Your task to perform on an android device: empty trash in the gmail app Image 0: 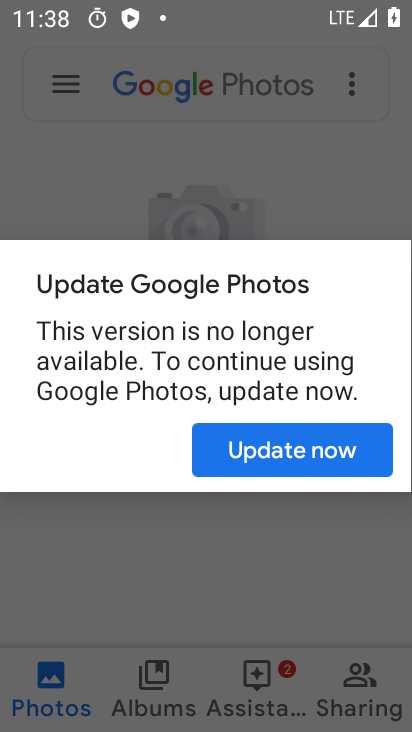
Step 0: press back button
Your task to perform on an android device: empty trash in the gmail app Image 1: 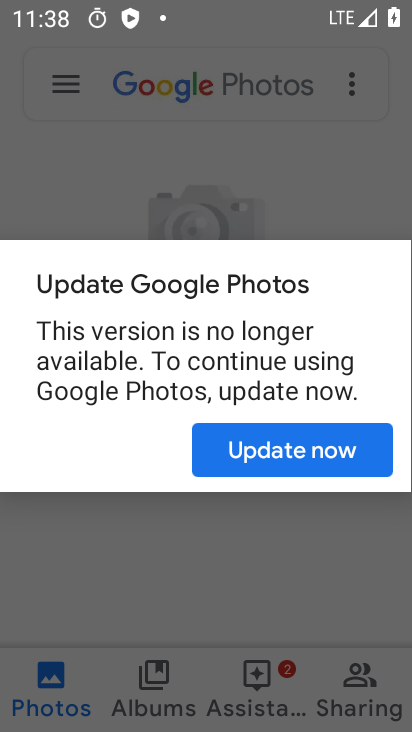
Step 1: press home button
Your task to perform on an android device: empty trash in the gmail app Image 2: 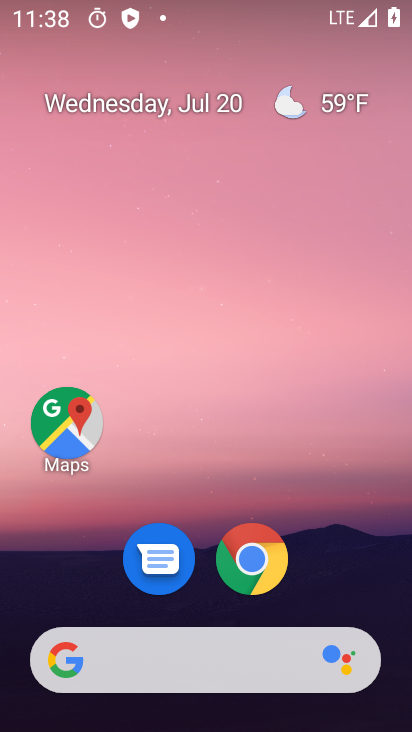
Step 2: drag from (97, 599) to (229, 15)
Your task to perform on an android device: empty trash in the gmail app Image 3: 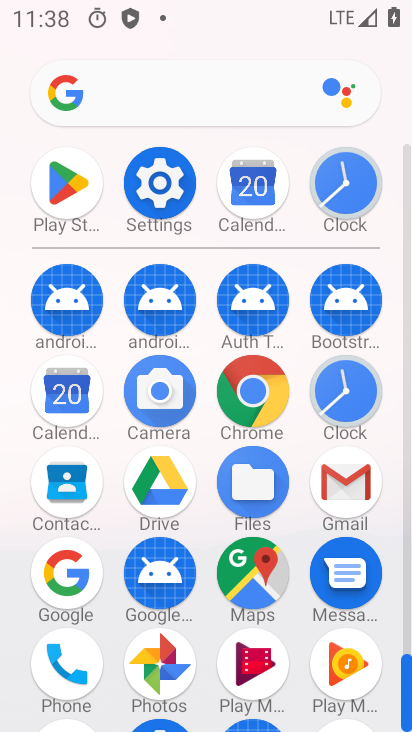
Step 3: click (351, 484)
Your task to perform on an android device: empty trash in the gmail app Image 4: 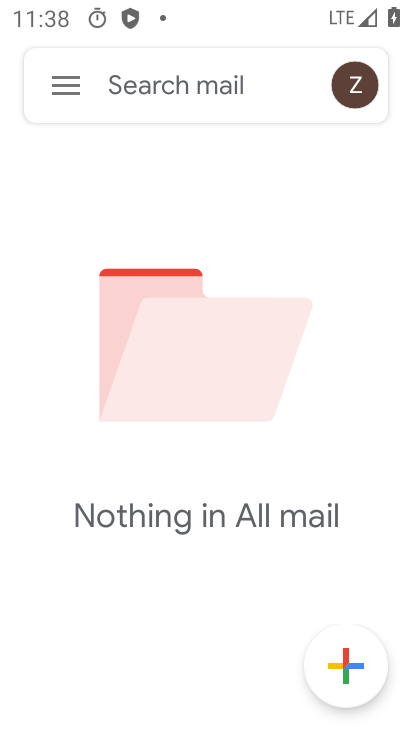
Step 4: click (83, 76)
Your task to perform on an android device: empty trash in the gmail app Image 5: 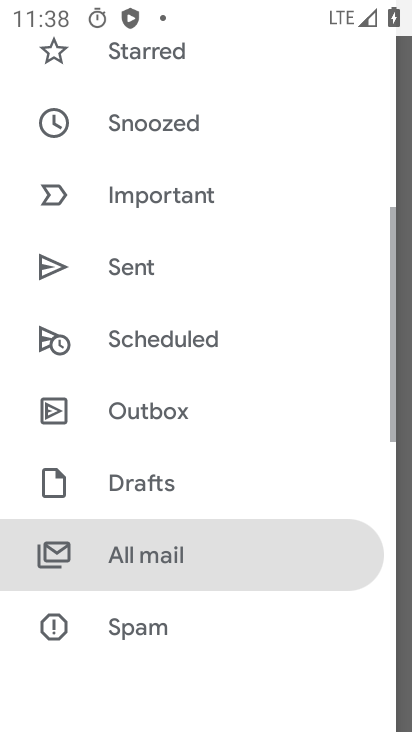
Step 5: drag from (194, 231) to (194, 638)
Your task to perform on an android device: empty trash in the gmail app Image 6: 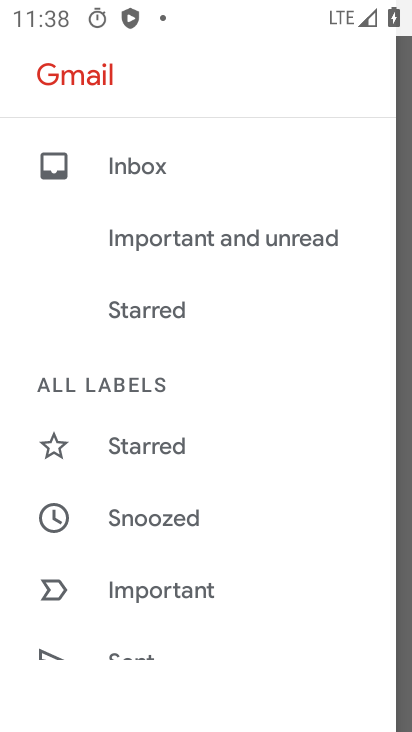
Step 6: drag from (199, 608) to (232, 131)
Your task to perform on an android device: empty trash in the gmail app Image 7: 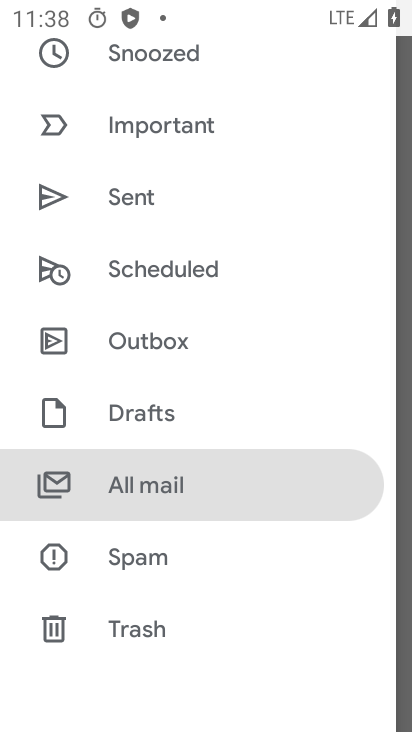
Step 7: click (144, 623)
Your task to perform on an android device: empty trash in the gmail app Image 8: 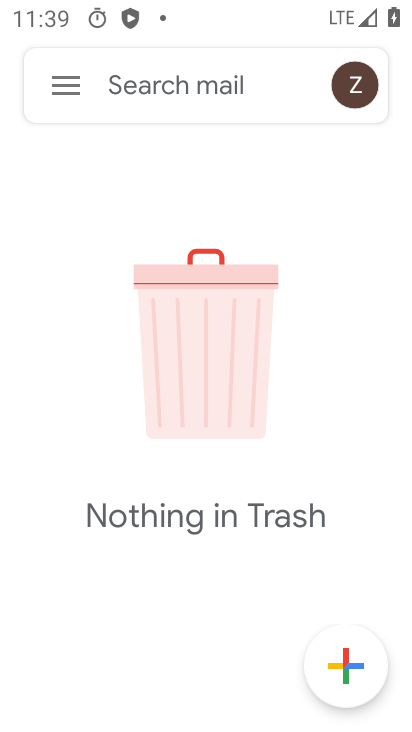
Step 8: task complete